Your task to perform on an android device: see creations saved in the google photos Image 0: 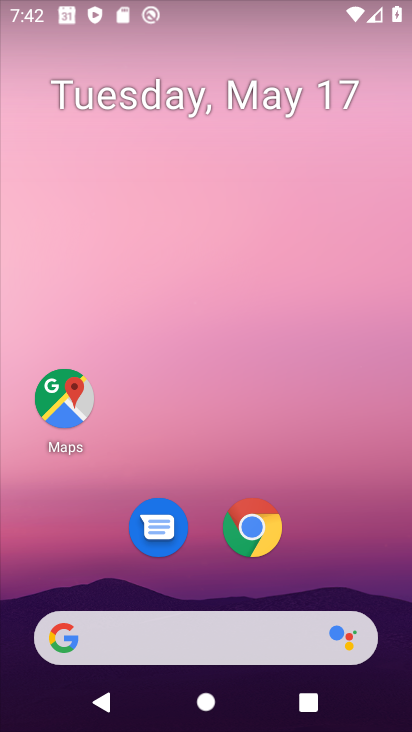
Step 0: drag from (267, 665) to (311, 153)
Your task to perform on an android device: see creations saved in the google photos Image 1: 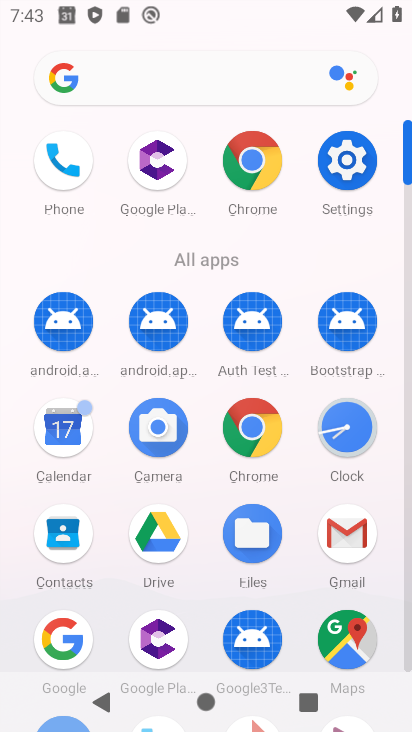
Step 1: drag from (295, 558) to (334, 448)
Your task to perform on an android device: see creations saved in the google photos Image 2: 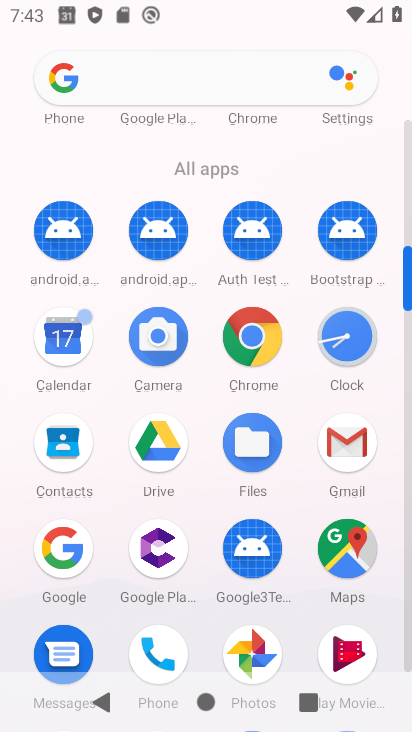
Step 2: click (260, 637)
Your task to perform on an android device: see creations saved in the google photos Image 3: 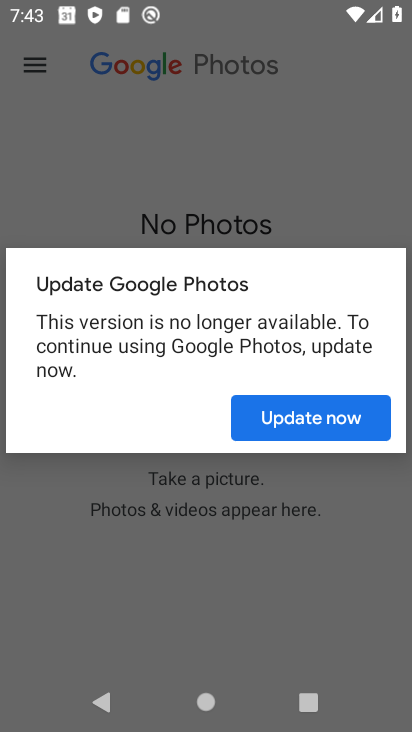
Step 3: click (298, 414)
Your task to perform on an android device: see creations saved in the google photos Image 4: 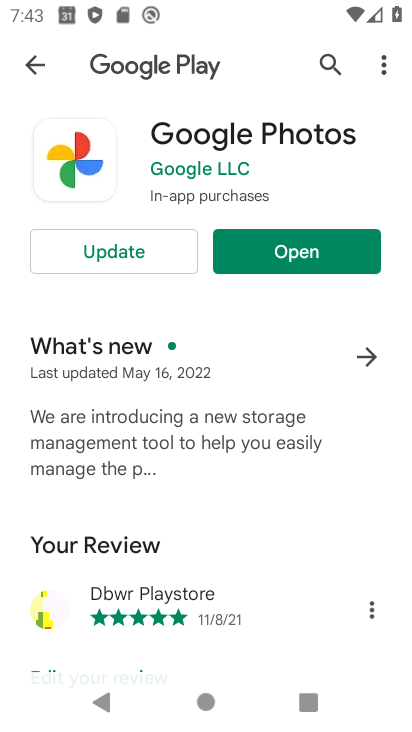
Step 4: click (262, 251)
Your task to perform on an android device: see creations saved in the google photos Image 5: 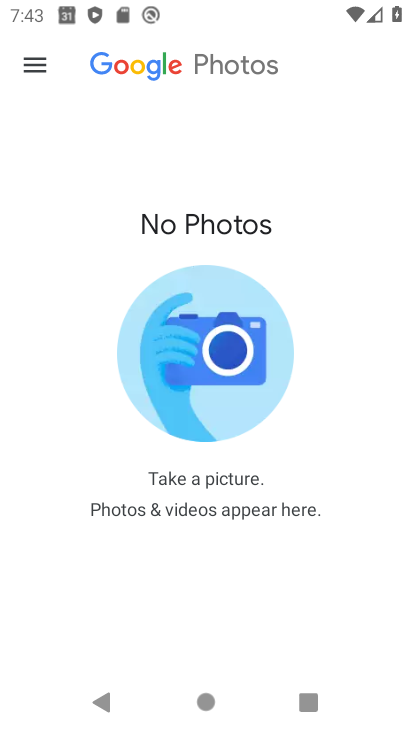
Step 5: click (39, 55)
Your task to perform on an android device: see creations saved in the google photos Image 6: 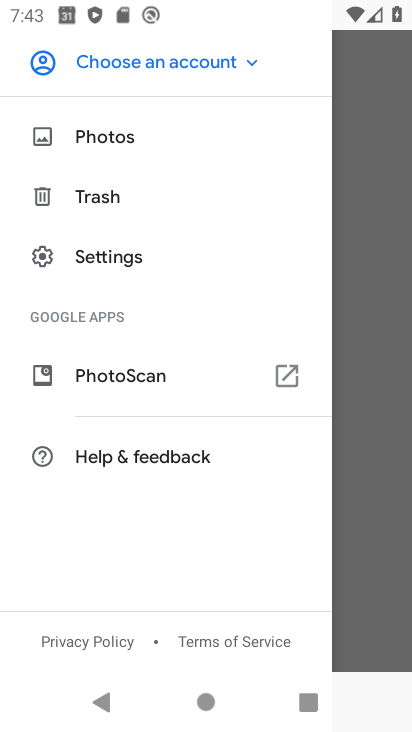
Step 6: click (106, 138)
Your task to perform on an android device: see creations saved in the google photos Image 7: 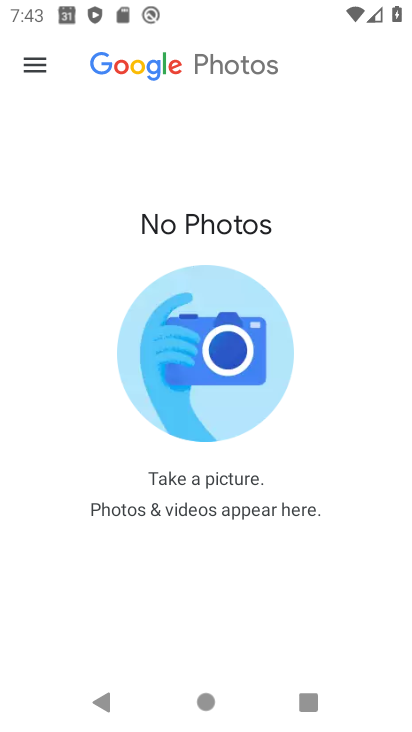
Step 7: task complete